Your task to perform on an android device: toggle translation in the chrome app Image 0: 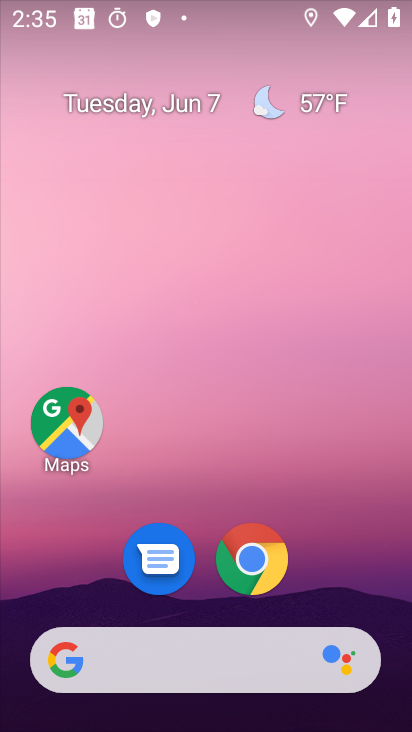
Step 0: drag from (293, 463) to (34, 20)
Your task to perform on an android device: toggle translation in the chrome app Image 1: 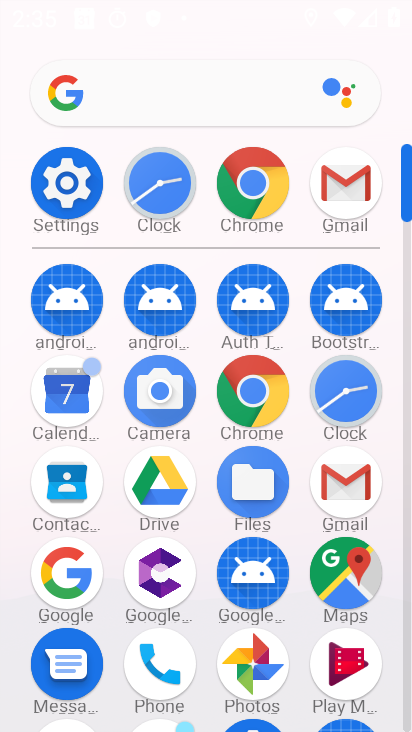
Step 1: click (249, 179)
Your task to perform on an android device: toggle translation in the chrome app Image 2: 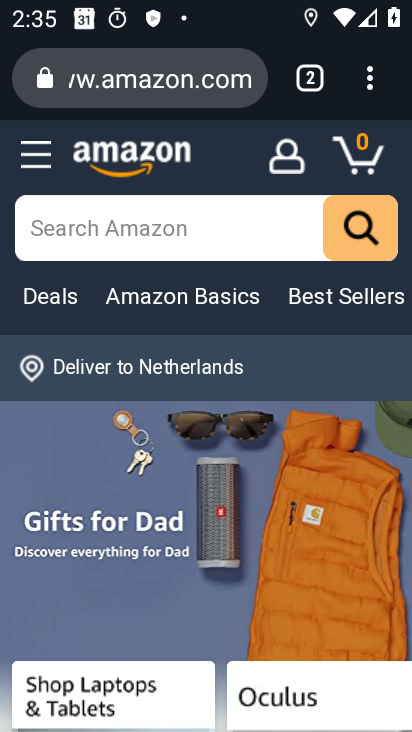
Step 2: drag from (366, 86) to (183, 626)
Your task to perform on an android device: toggle translation in the chrome app Image 3: 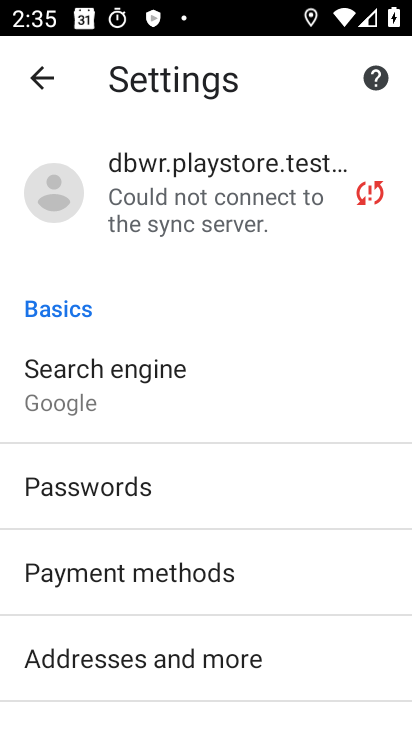
Step 3: drag from (244, 615) to (248, 235)
Your task to perform on an android device: toggle translation in the chrome app Image 4: 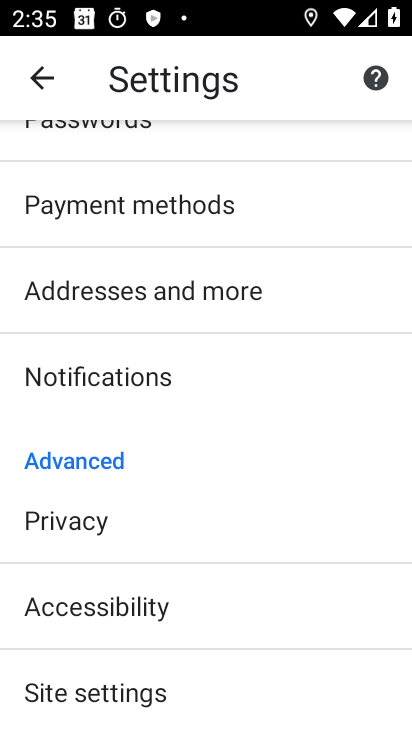
Step 4: drag from (218, 655) to (258, 228)
Your task to perform on an android device: toggle translation in the chrome app Image 5: 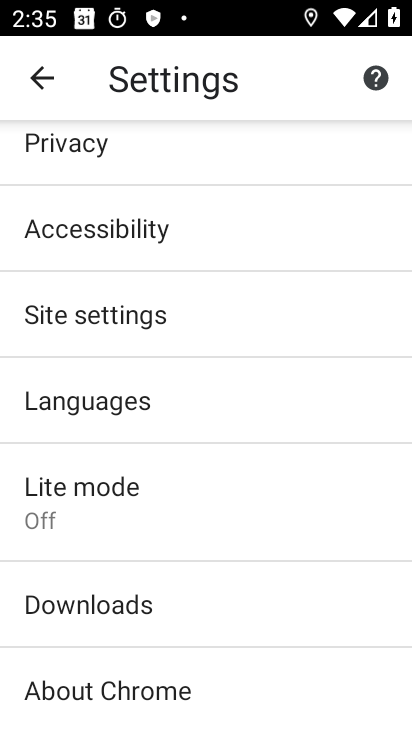
Step 5: click (157, 405)
Your task to perform on an android device: toggle translation in the chrome app Image 6: 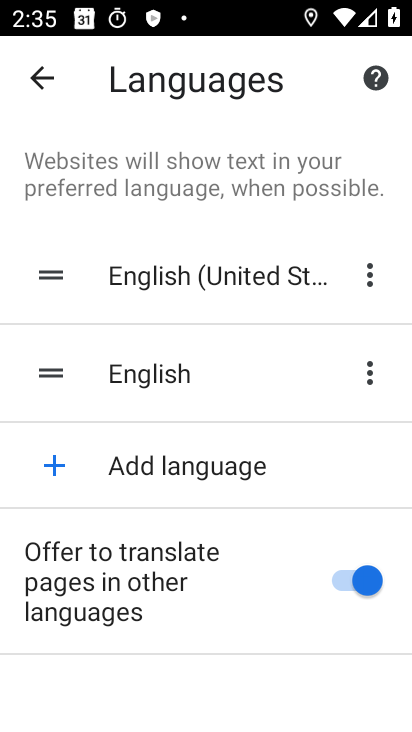
Step 6: click (362, 575)
Your task to perform on an android device: toggle translation in the chrome app Image 7: 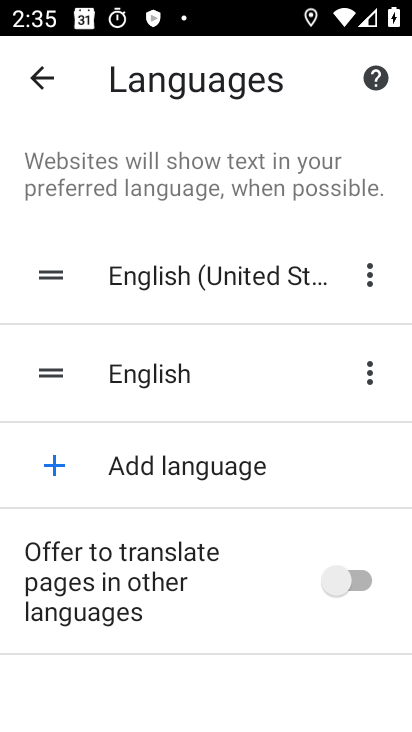
Step 7: task complete